Your task to perform on an android device: check out phone information Image 0: 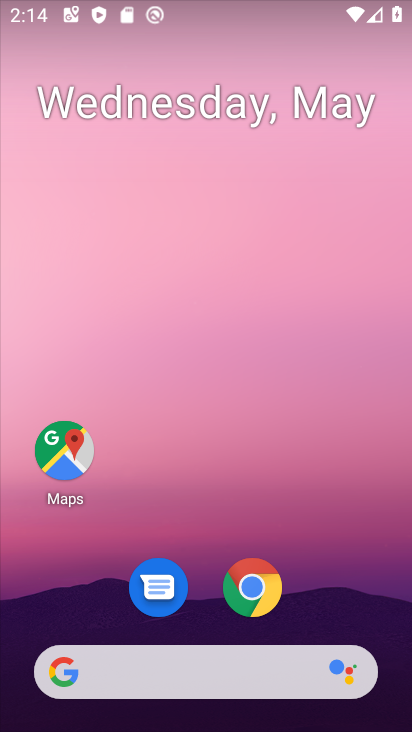
Step 0: drag from (336, 613) to (282, 24)
Your task to perform on an android device: check out phone information Image 1: 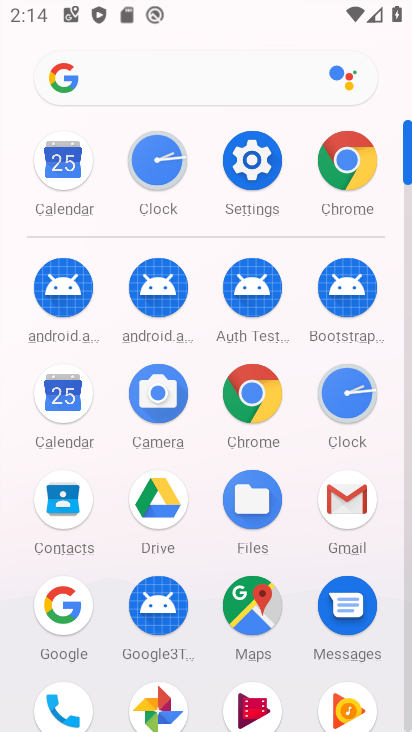
Step 1: drag from (307, 552) to (284, 128)
Your task to perform on an android device: check out phone information Image 2: 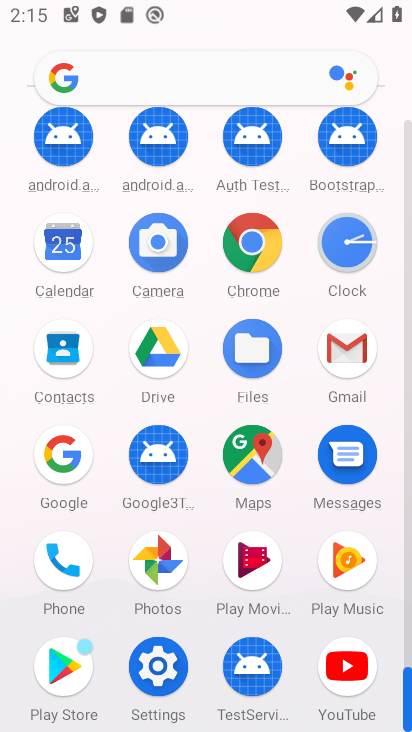
Step 2: drag from (391, 633) to (361, 368)
Your task to perform on an android device: check out phone information Image 3: 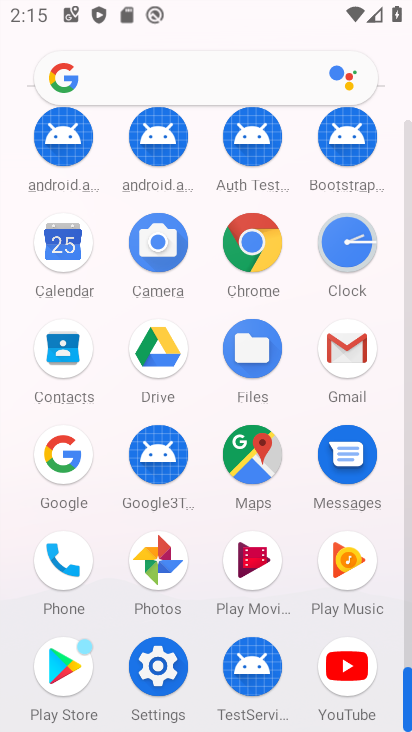
Step 3: click (164, 687)
Your task to perform on an android device: check out phone information Image 4: 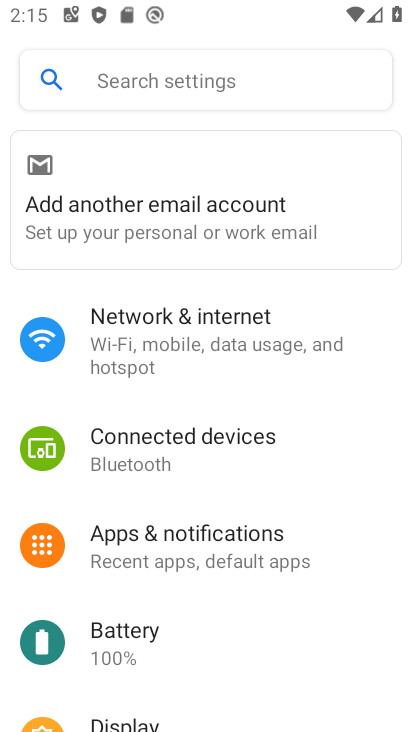
Step 4: drag from (225, 716) to (175, 230)
Your task to perform on an android device: check out phone information Image 5: 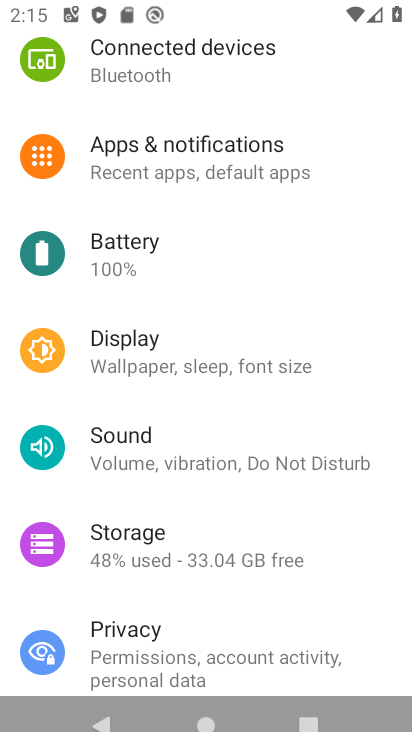
Step 5: drag from (213, 632) to (198, 33)
Your task to perform on an android device: check out phone information Image 6: 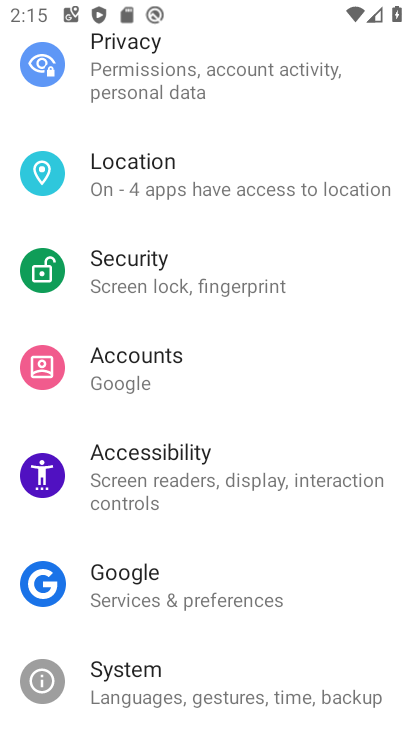
Step 6: drag from (263, 633) to (270, 41)
Your task to perform on an android device: check out phone information Image 7: 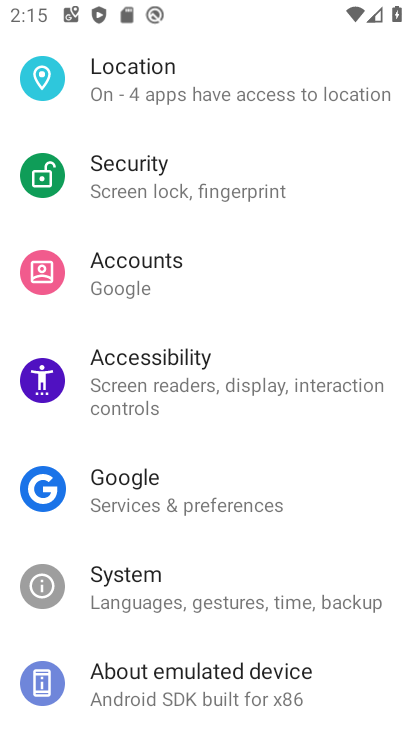
Step 7: click (209, 685)
Your task to perform on an android device: check out phone information Image 8: 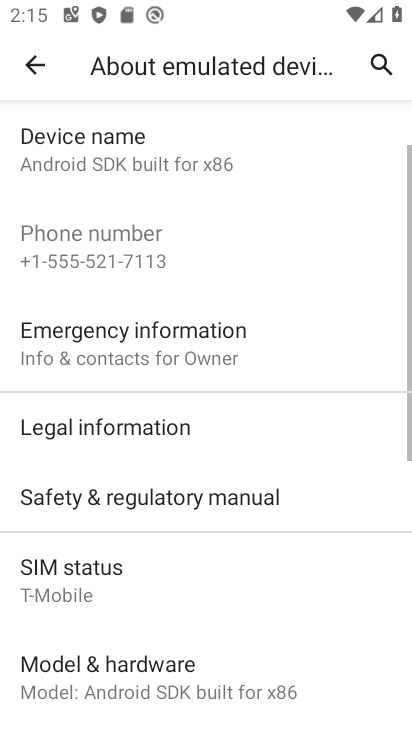
Step 8: task complete